Your task to perform on an android device: Clear all items from cart on newegg. Add jbl flip 4 to the cart on newegg Image 0: 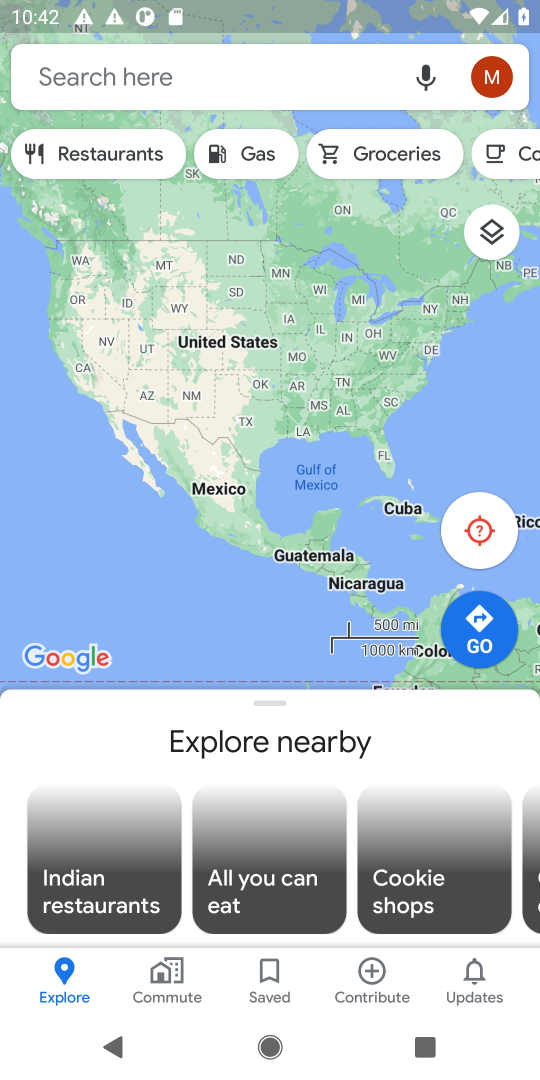
Step 0: press home button
Your task to perform on an android device: Clear all items from cart on newegg. Add jbl flip 4 to the cart on newegg Image 1: 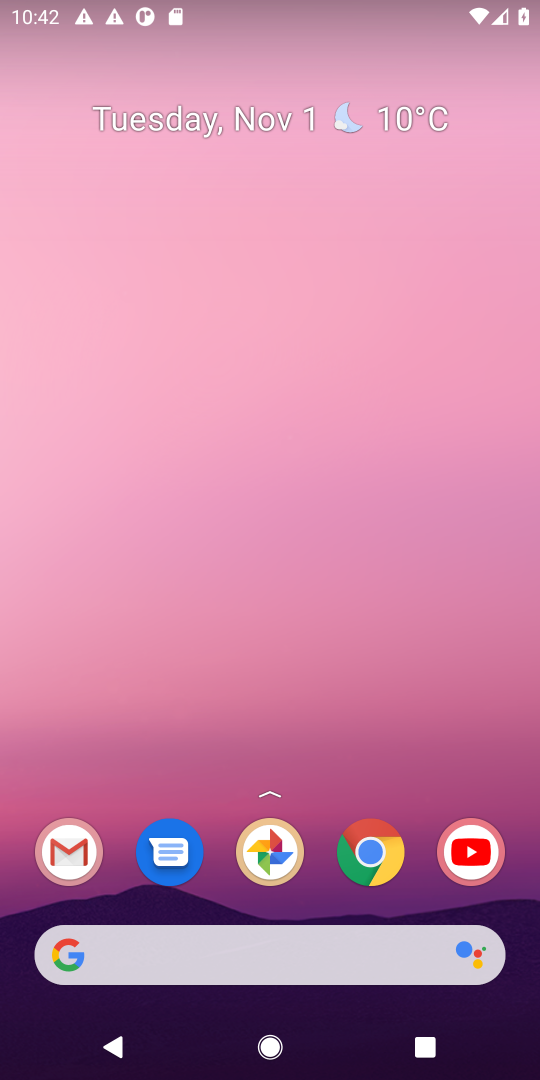
Step 1: click (62, 944)
Your task to perform on an android device: Clear all items from cart on newegg. Add jbl flip 4 to the cart on newegg Image 2: 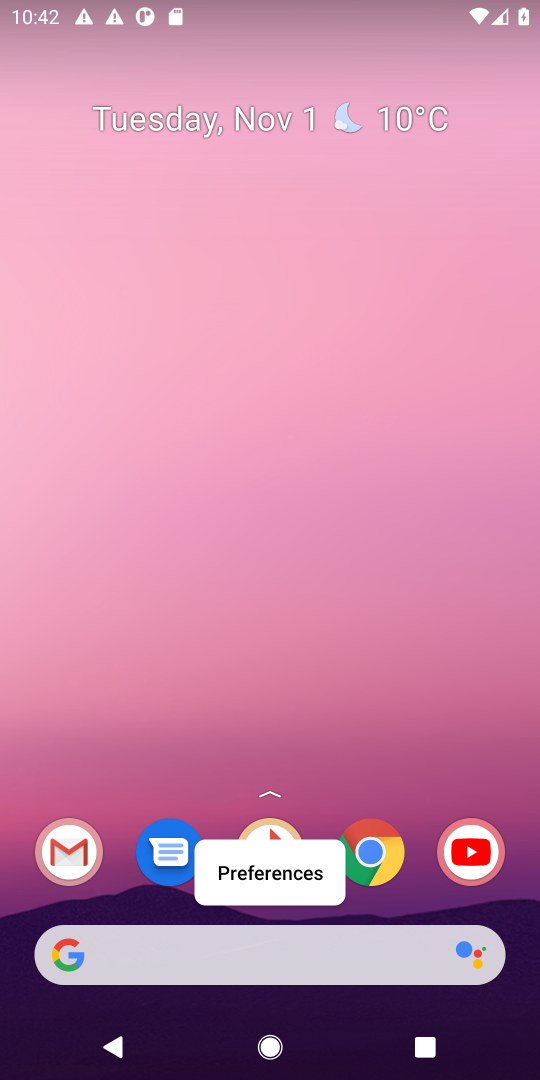
Step 2: click (55, 948)
Your task to perform on an android device: Clear all items from cart on newegg. Add jbl flip 4 to the cart on newegg Image 3: 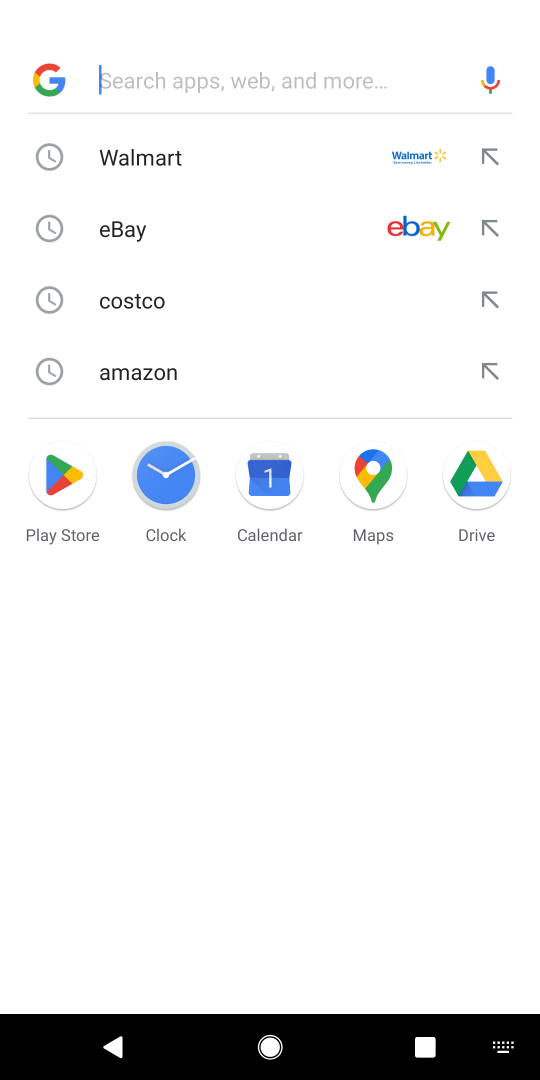
Step 3: type "newegg"
Your task to perform on an android device: Clear all items from cart on newegg. Add jbl flip 4 to the cart on newegg Image 4: 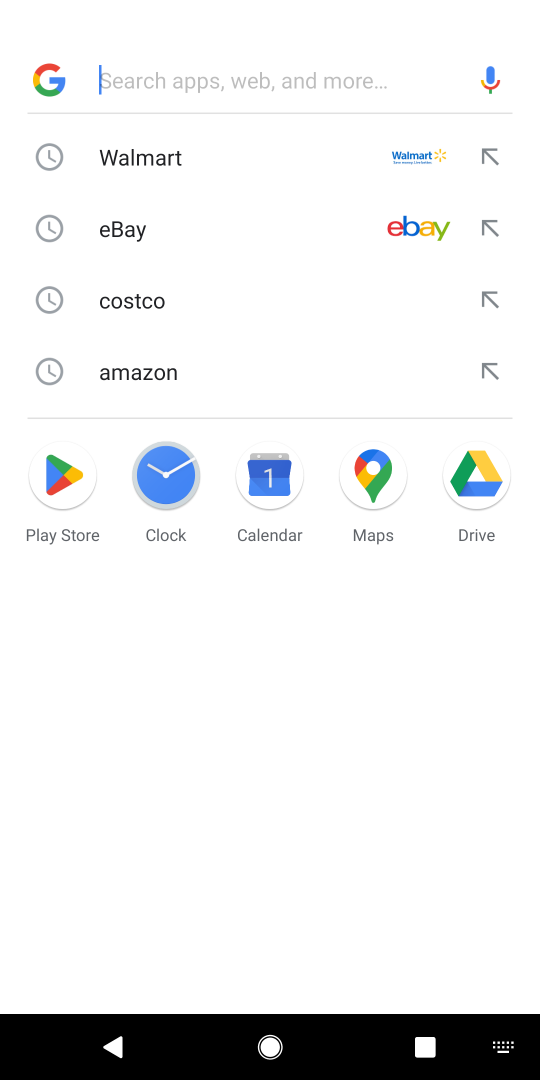
Step 4: click (115, 82)
Your task to perform on an android device: Clear all items from cart on newegg. Add jbl flip 4 to the cart on newegg Image 5: 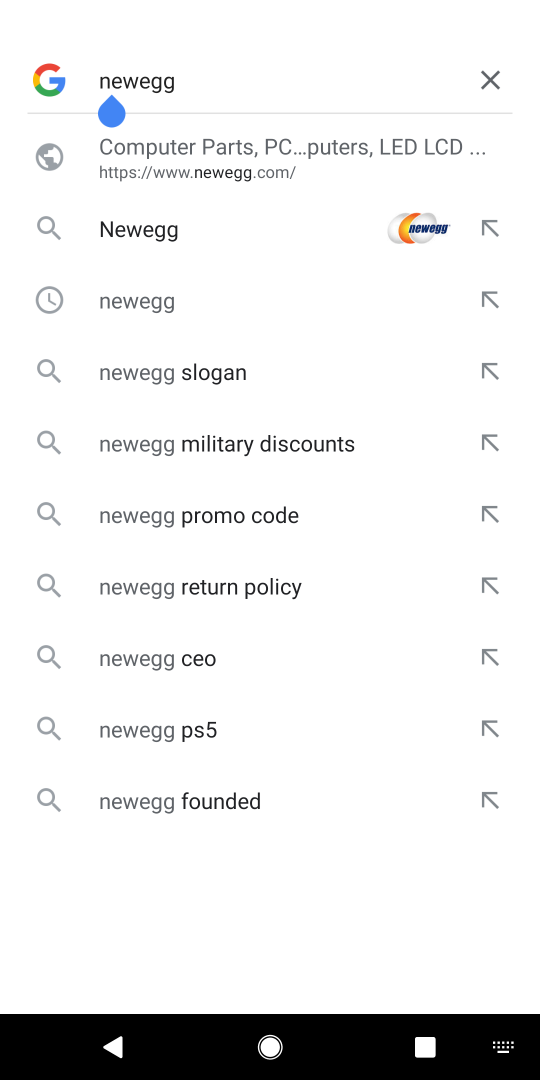
Step 5: click (115, 224)
Your task to perform on an android device: Clear all items from cart on newegg. Add jbl flip 4 to the cart on newegg Image 6: 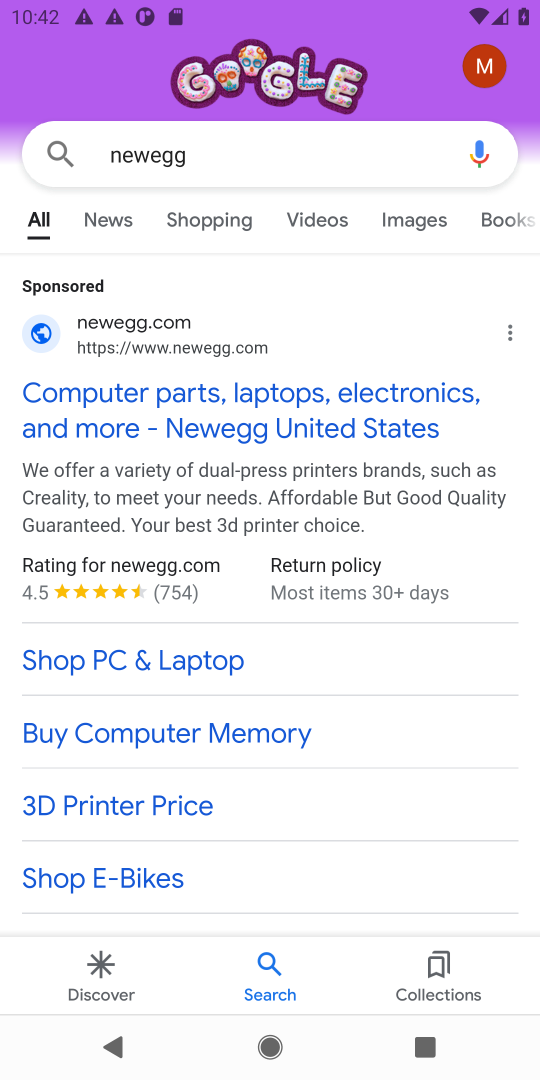
Step 6: drag from (250, 869) to (207, 397)
Your task to perform on an android device: Clear all items from cart on newegg. Add jbl flip 4 to the cart on newegg Image 7: 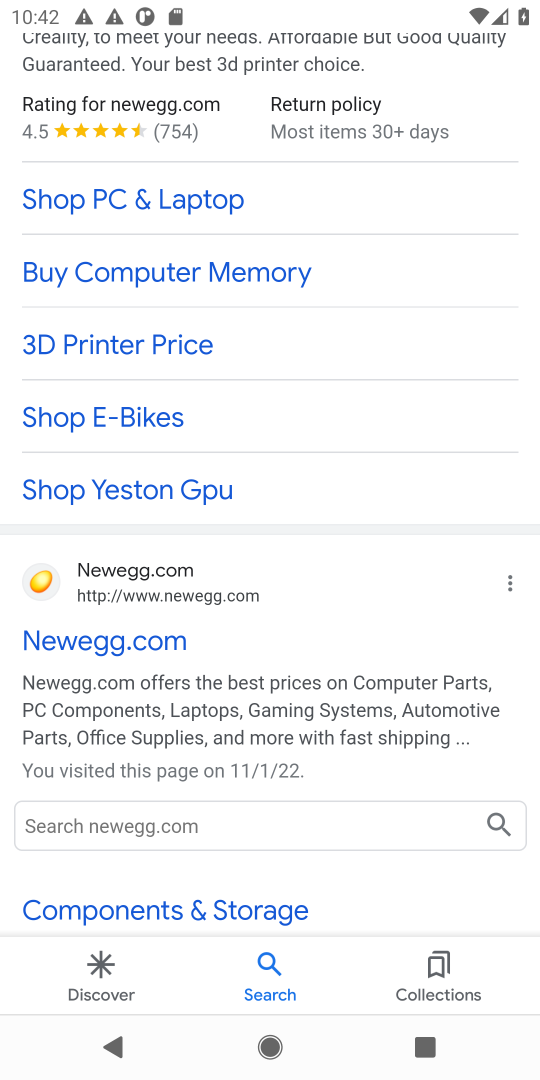
Step 7: click (88, 640)
Your task to perform on an android device: Clear all items from cart on newegg. Add jbl flip 4 to the cart on newegg Image 8: 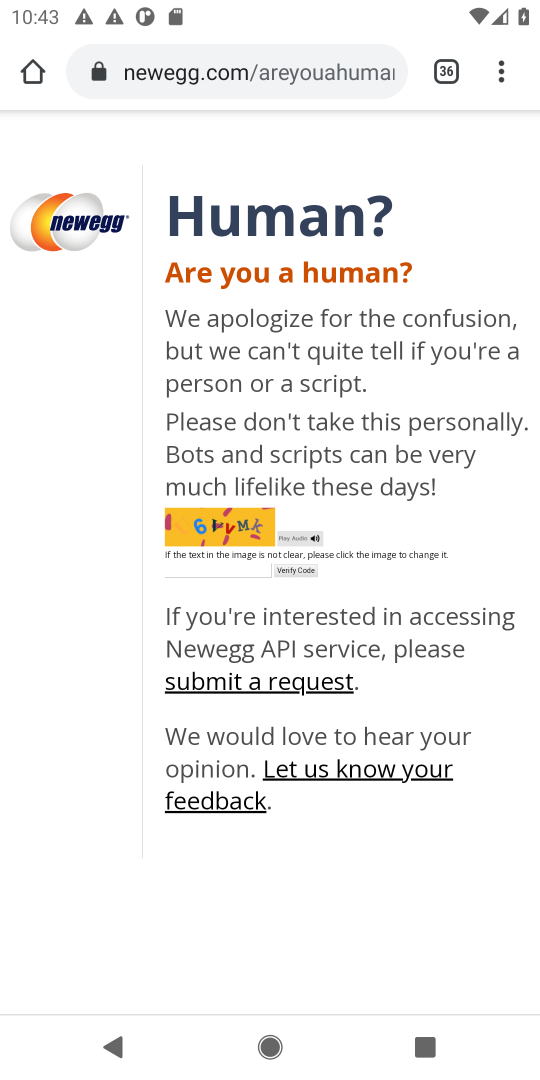
Step 8: click (203, 569)
Your task to perform on an android device: Clear all items from cart on newegg. Add jbl flip 4 to the cart on newegg Image 9: 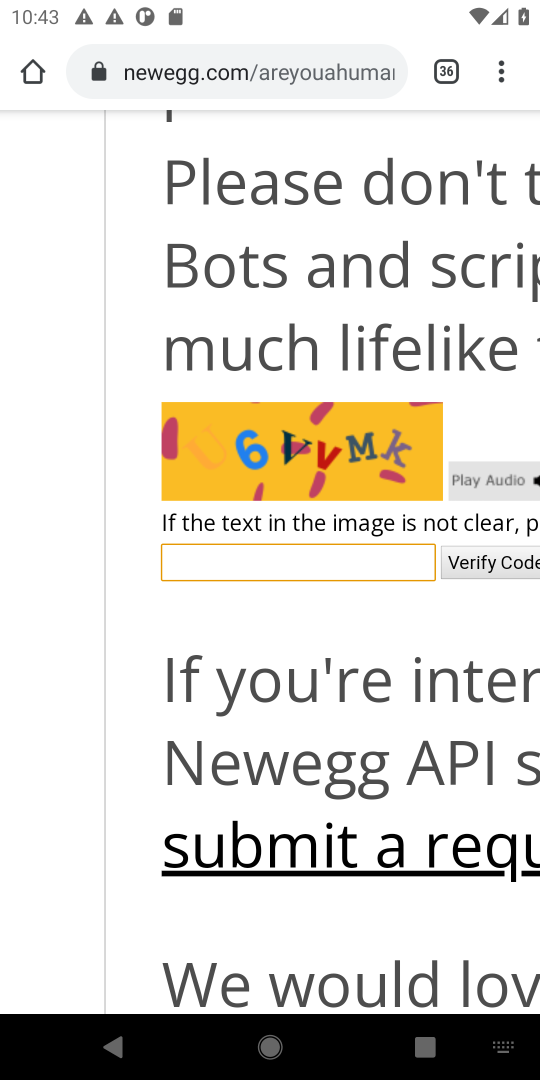
Step 9: type "6VVMK"
Your task to perform on an android device: Clear all items from cart on newegg. Add jbl flip 4 to the cart on newegg Image 10: 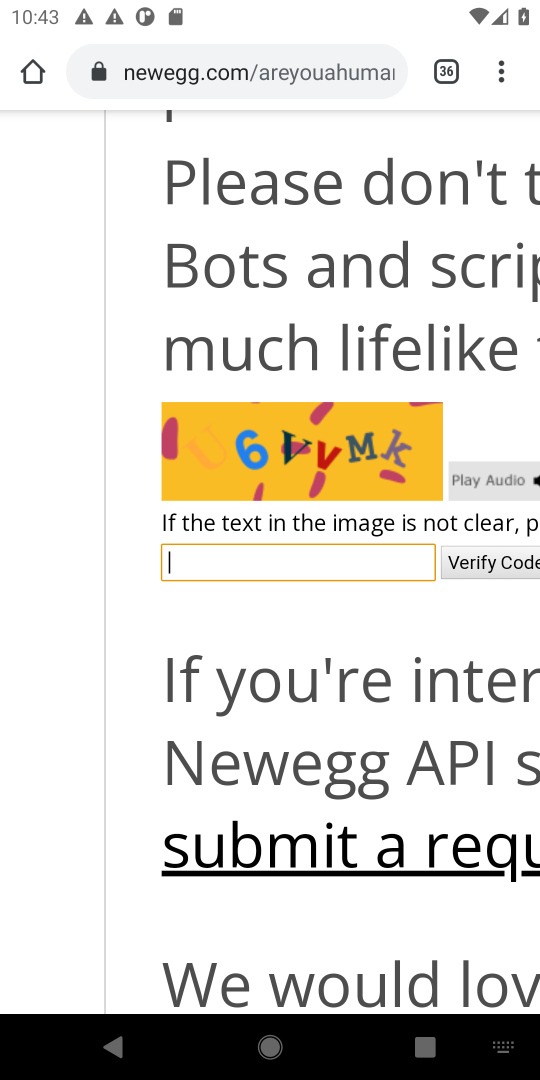
Step 10: click (336, 556)
Your task to perform on an android device: Clear all items from cart on newegg. Add jbl flip 4 to the cart on newegg Image 11: 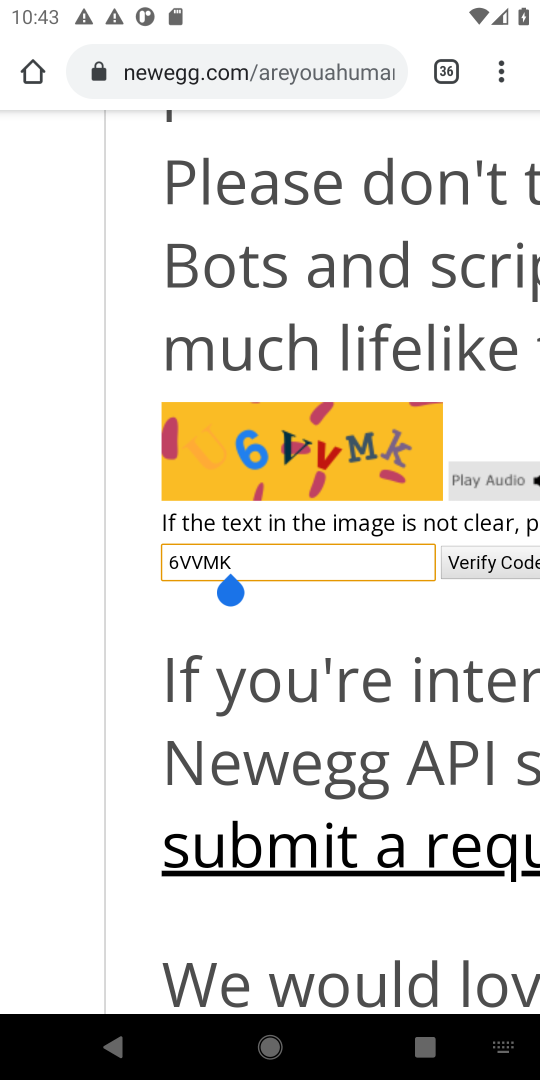
Step 11: click (510, 561)
Your task to perform on an android device: Clear all items from cart on newegg. Add jbl flip 4 to the cart on newegg Image 12: 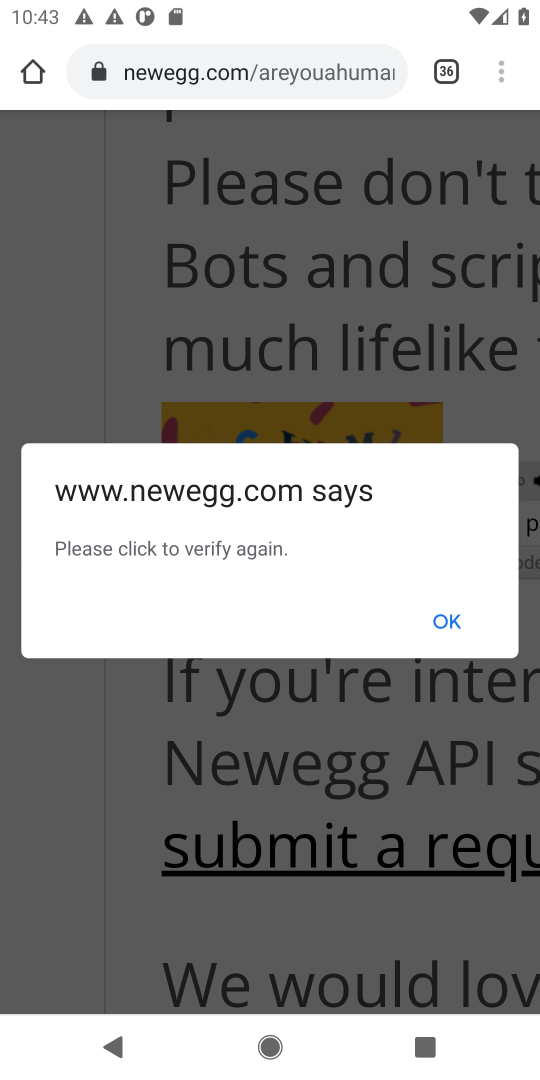
Step 12: click (446, 620)
Your task to perform on an android device: Clear all items from cart on newegg. Add jbl flip 4 to the cart on newegg Image 13: 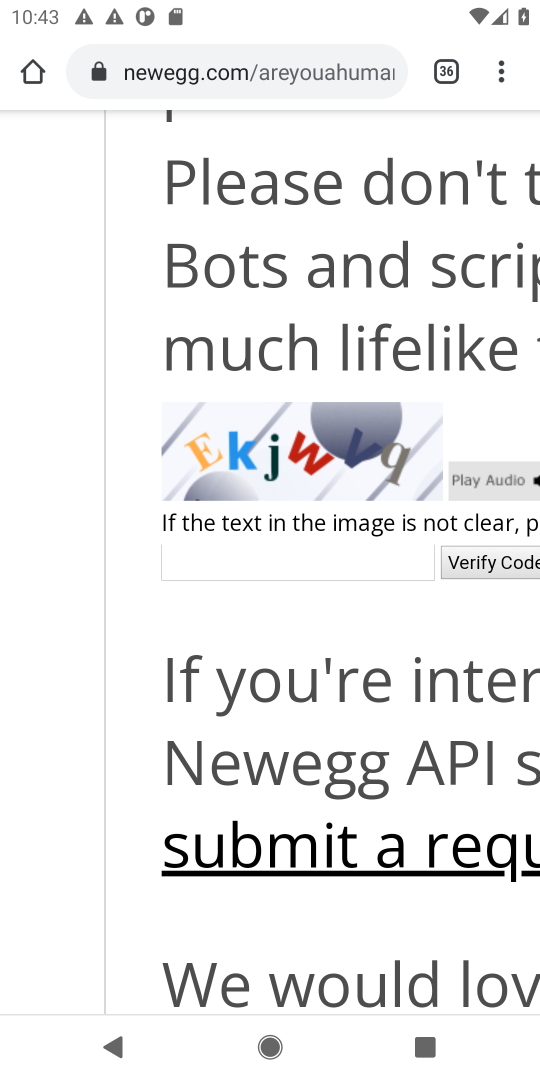
Step 13: click (307, 552)
Your task to perform on an android device: Clear all items from cart on newegg. Add jbl flip 4 to the cart on newegg Image 14: 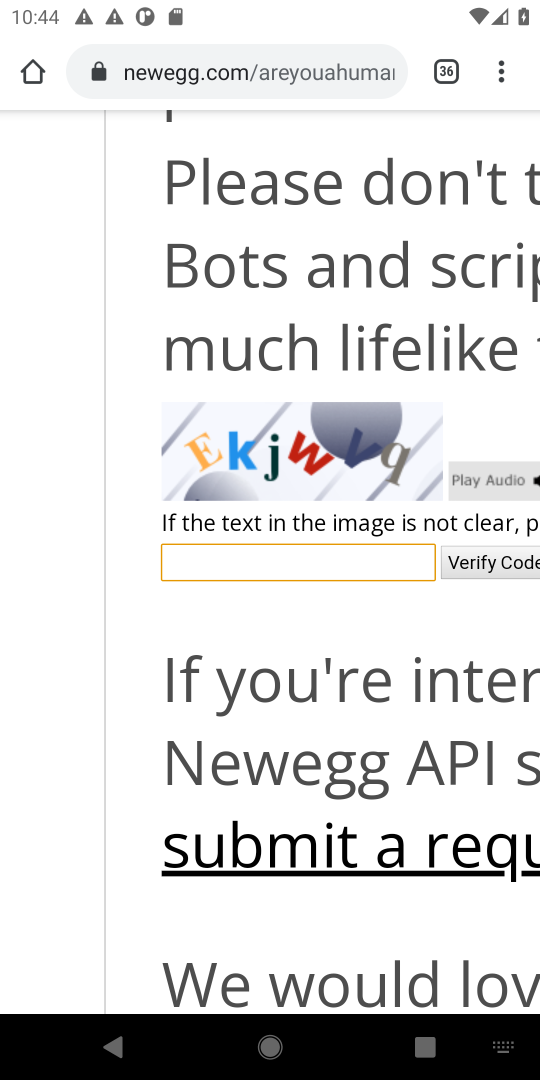
Step 14: type "EKjWVq"
Your task to perform on an android device: Clear all items from cart on newegg. Add jbl flip 4 to the cart on newegg Image 15: 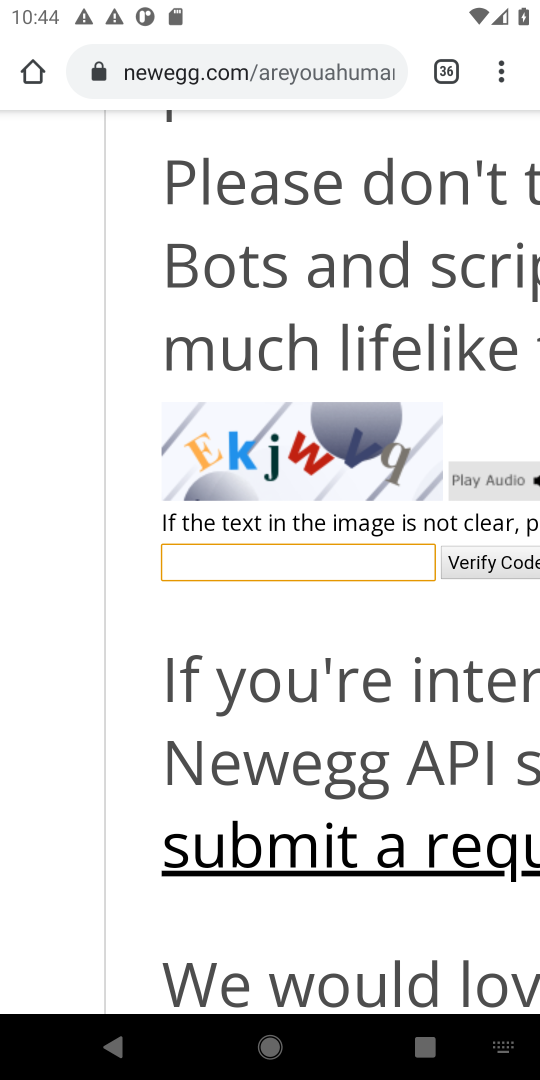
Step 15: click (351, 562)
Your task to perform on an android device: Clear all items from cart on newegg. Add jbl flip 4 to the cart on newegg Image 16: 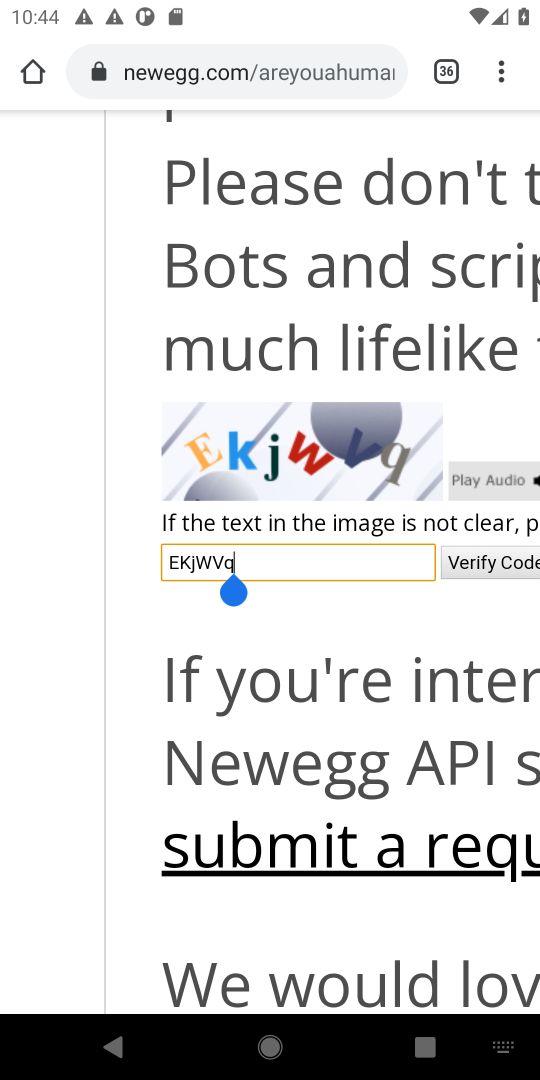
Step 16: click (510, 561)
Your task to perform on an android device: Clear all items from cart on newegg. Add jbl flip 4 to the cart on newegg Image 17: 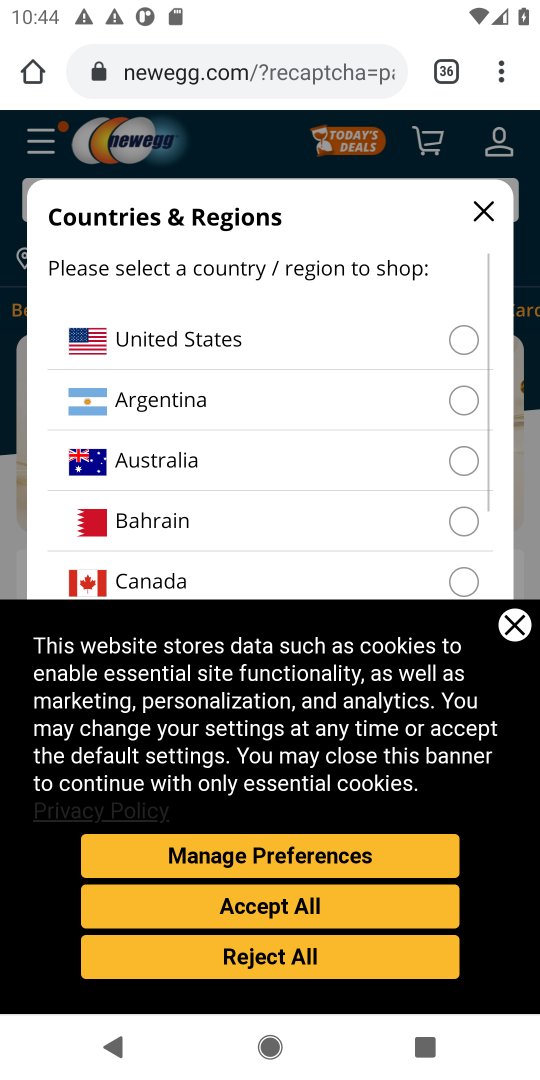
Step 17: click (515, 634)
Your task to perform on an android device: Clear all items from cart on newegg. Add jbl flip 4 to the cart on newegg Image 18: 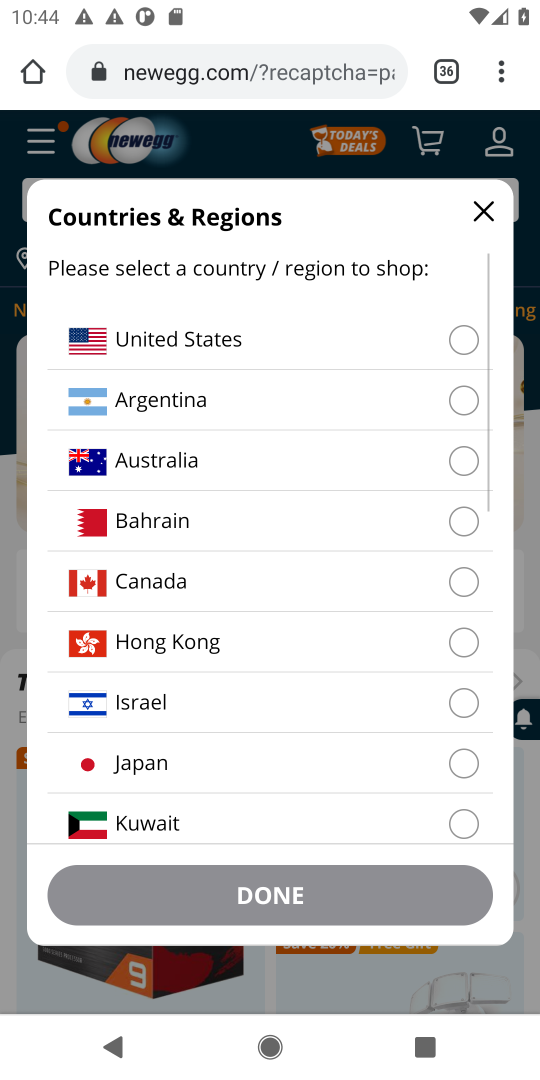
Step 18: click (460, 334)
Your task to perform on an android device: Clear all items from cart on newegg. Add jbl flip 4 to the cart on newegg Image 19: 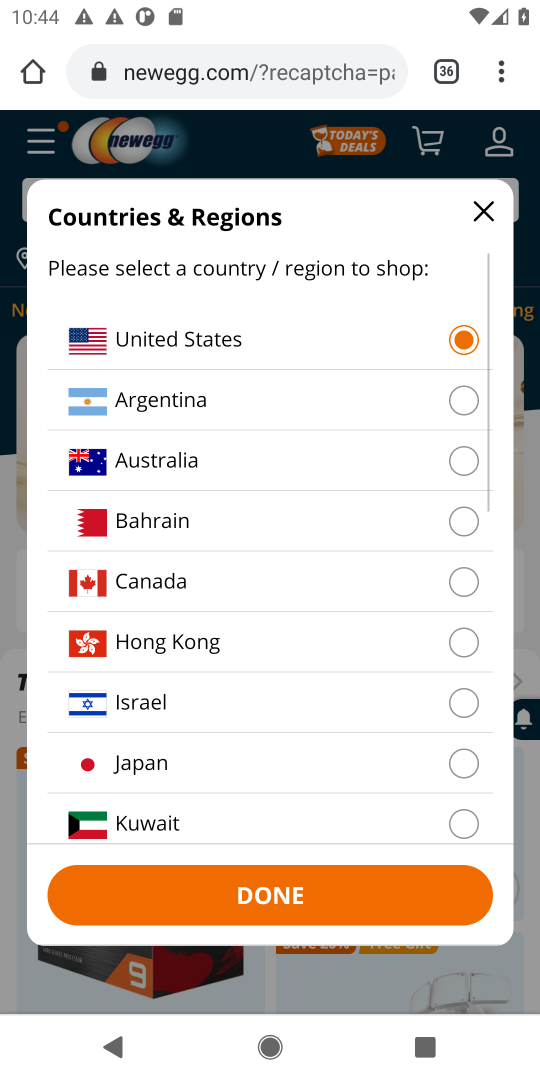
Step 19: click (306, 876)
Your task to perform on an android device: Clear all items from cart on newegg. Add jbl flip 4 to the cart on newegg Image 20: 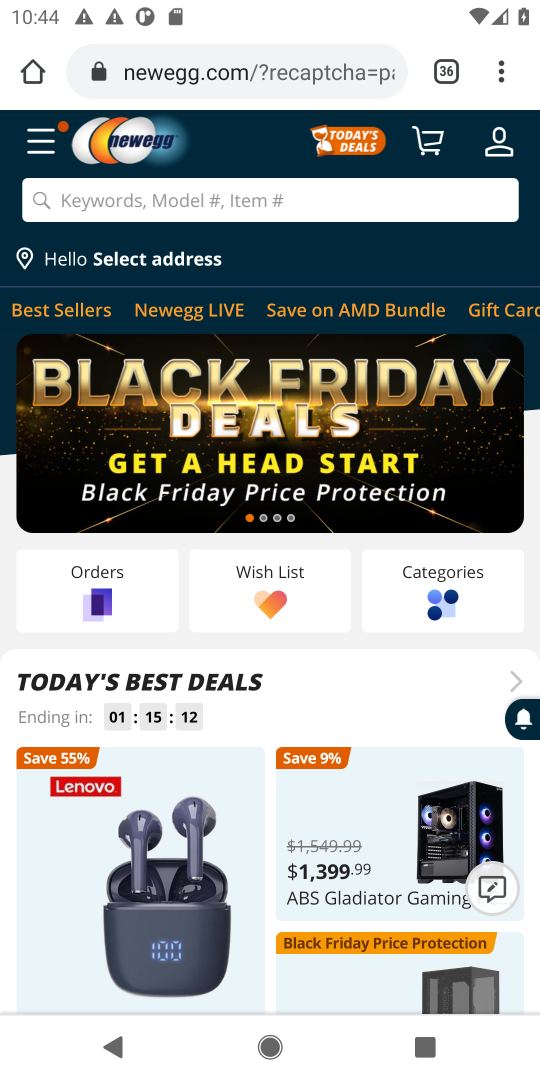
Step 20: click (152, 192)
Your task to perform on an android device: Clear all items from cart on newegg. Add jbl flip 4 to the cart on newegg Image 21: 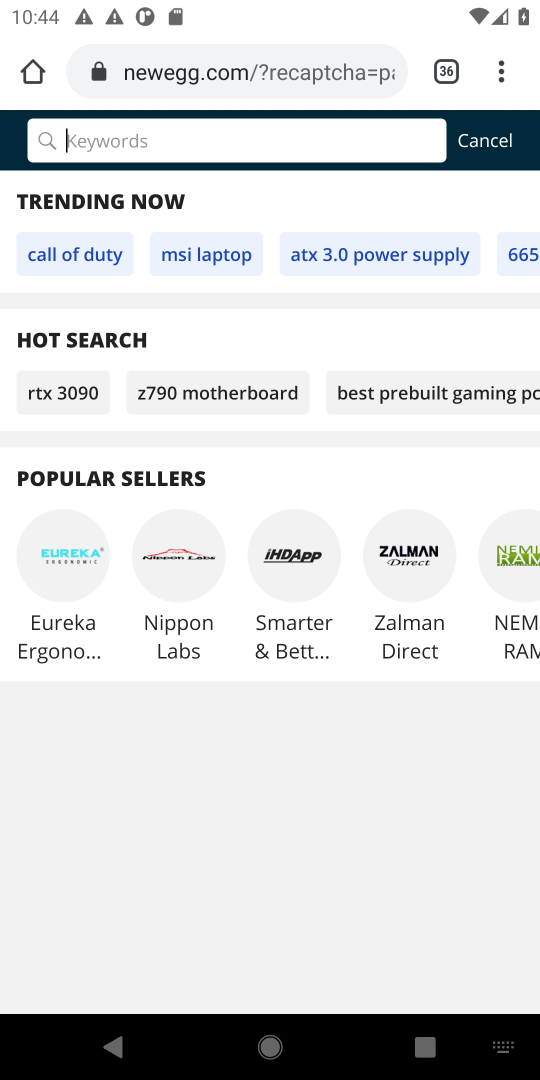
Step 21: type "jbl flip 4 "
Your task to perform on an android device: Clear all items from cart on newegg. Add jbl flip 4 to the cart on newegg Image 22: 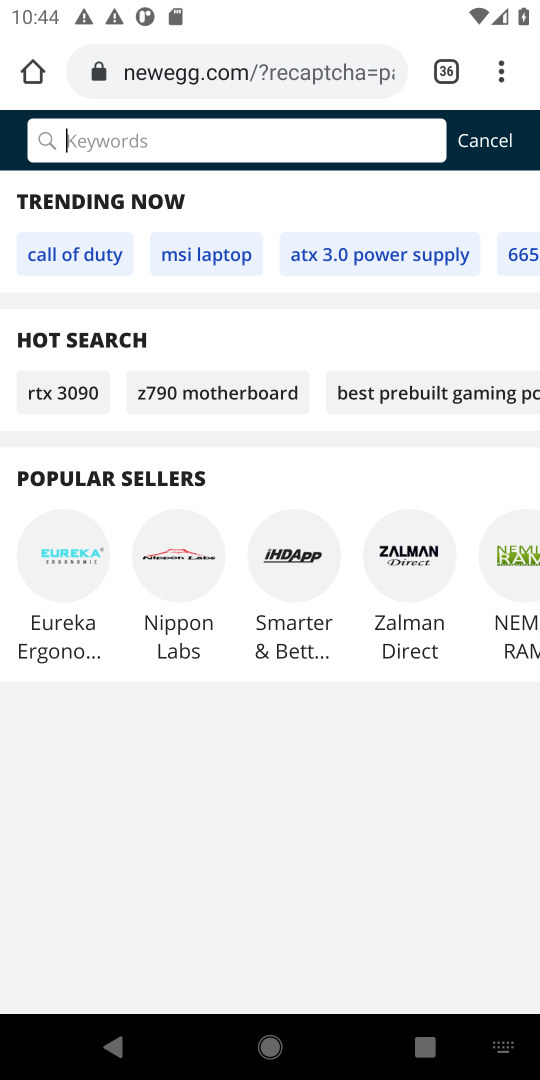
Step 22: click (116, 139)
Your task to perform on an android device: Clear all items from cart on newegg. Add jbl flip 4 to the cart on newegg Image 23: 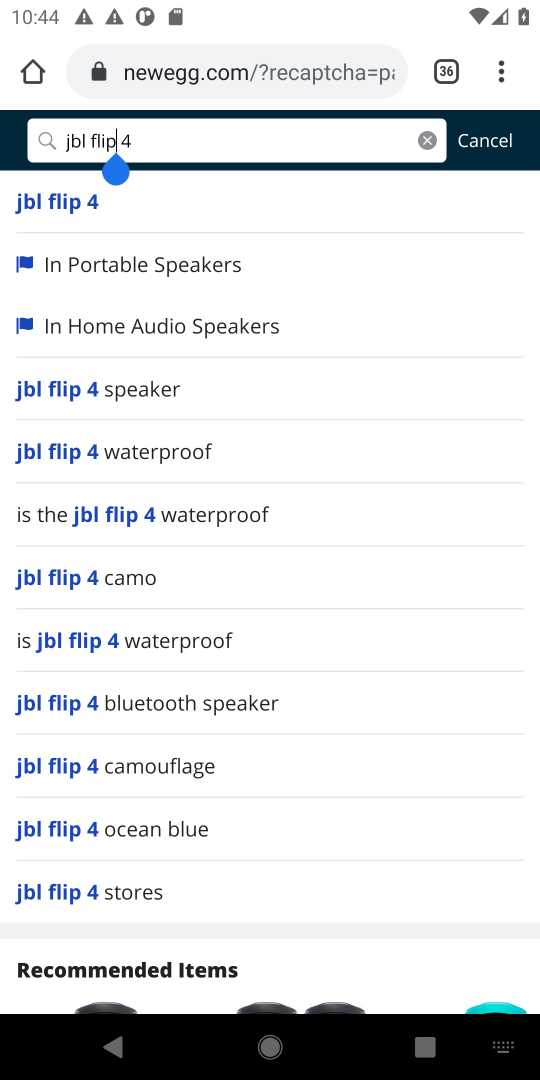
Step 23: press enter
Your task to perform on an android device: Clear all items from cart on newegg. Add jbl flip 4 to the cart on newegg Image 24: 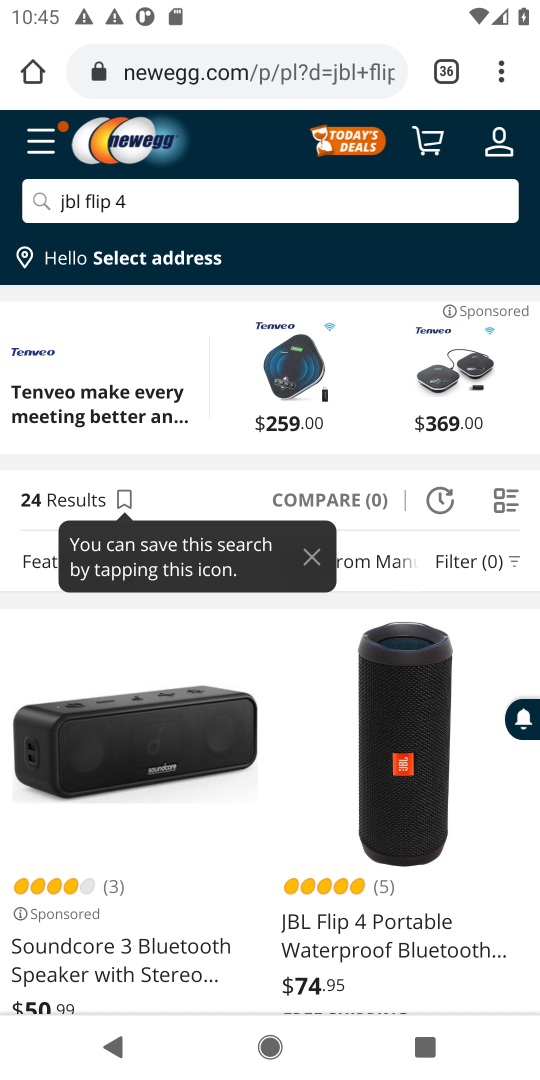
Step 24: drag from (402, 981) to (326, 695)
Your task to perform on an android device: Clear all items from cart on newegg. Add jbl flip 4 to the cart on newegg Image 25: 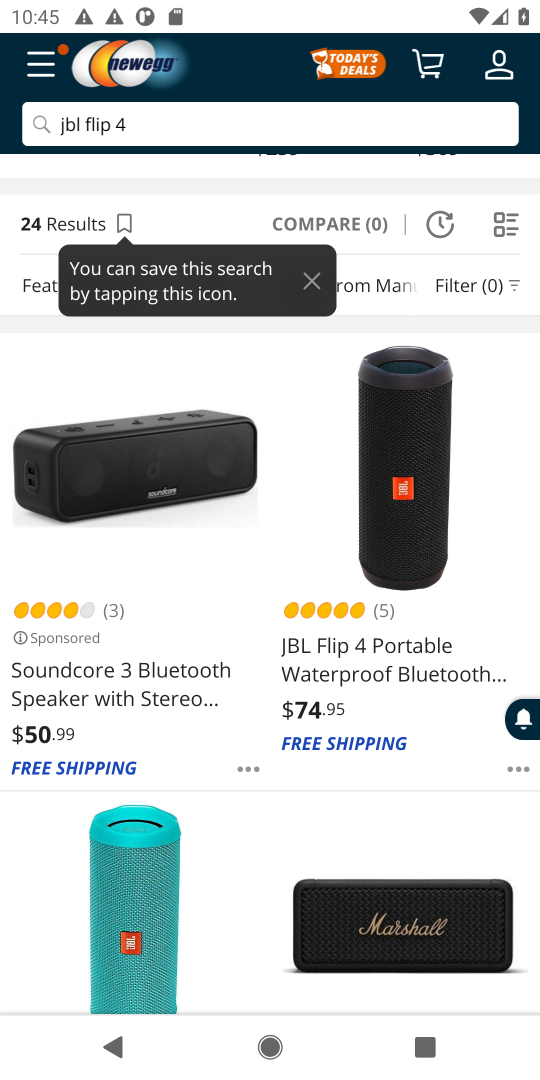
Step 25: click (377, 650)
Your task to perform on an android device: Clear all items from cart on newegg. Add jbl flip 4 to the cart on newegg Image 26: 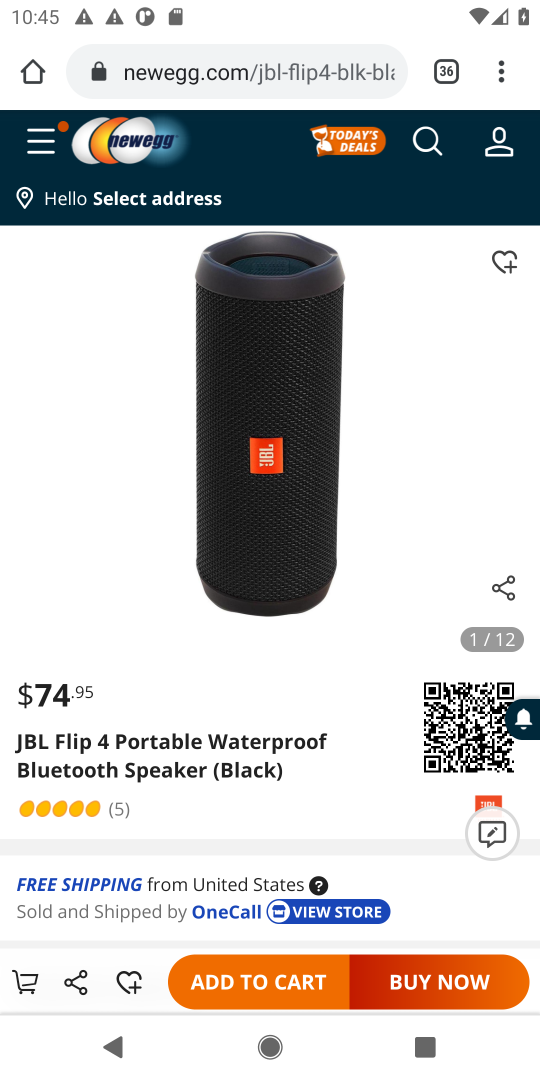
Step 26: click (248, 972)
Your task to perform on an android device: Clear all items from cart on newegg. Add jbl flip 4 to the cart on newegg Image 27: 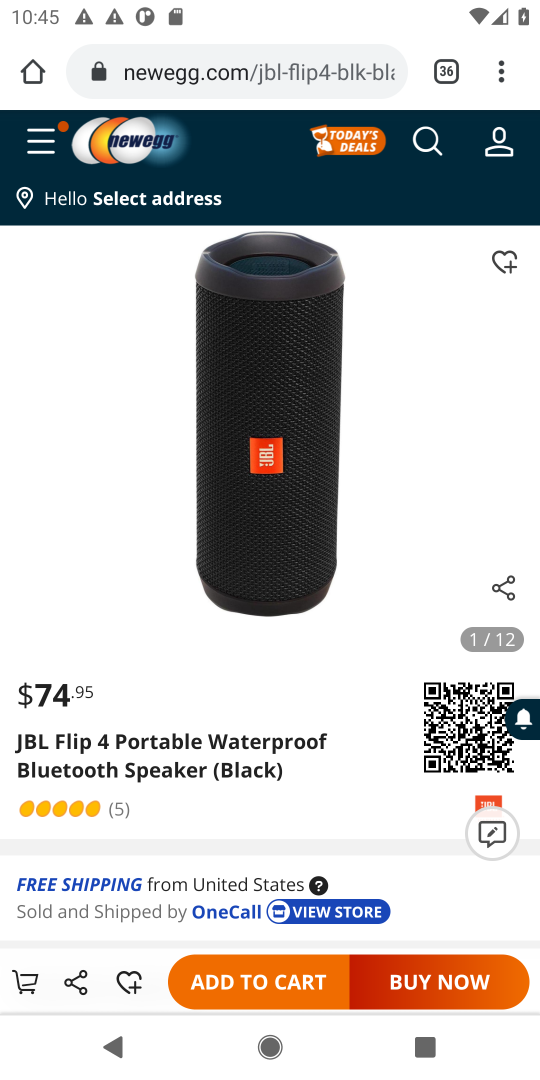
Step 27: click (283, 986)
Your task to perform on an android device: Clear all items from cart on newegg. Add jbl flip 4 to the cart on newegg Image 28: 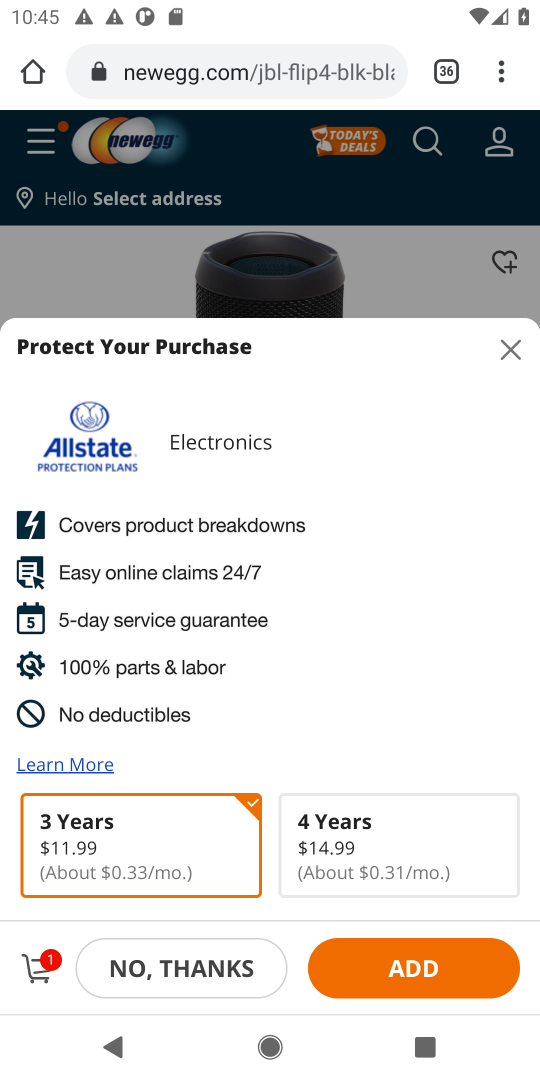
Step 28: task complete